Your task to perform on an android device: Open maps Image 0: 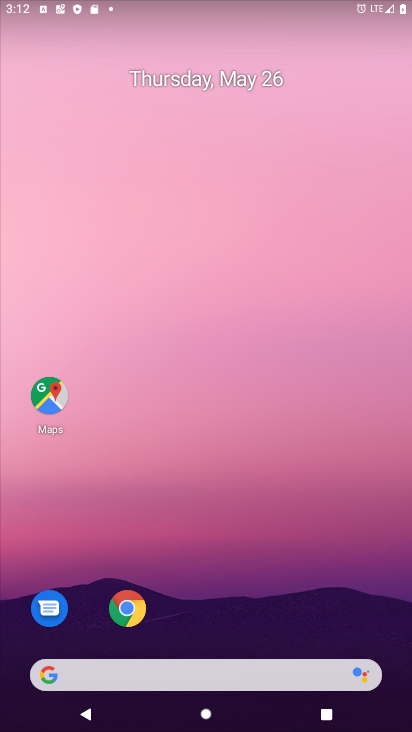
Step 0: click (52, 393)
Your task to perform on an android device: Open maps Image 1: 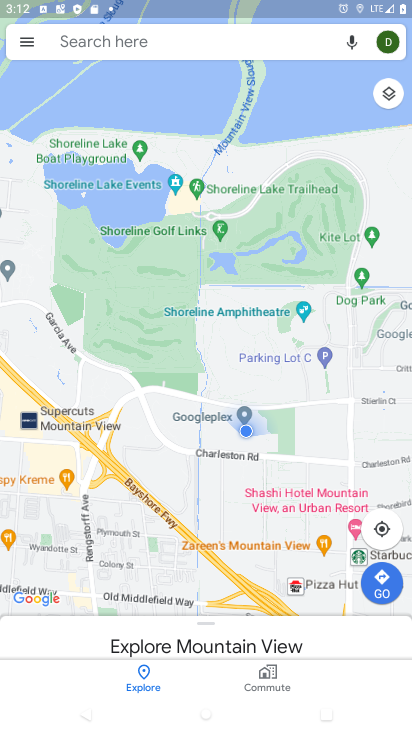
Step 1: task complete